Your task to perform on an android device: What's the weather? Image 0: 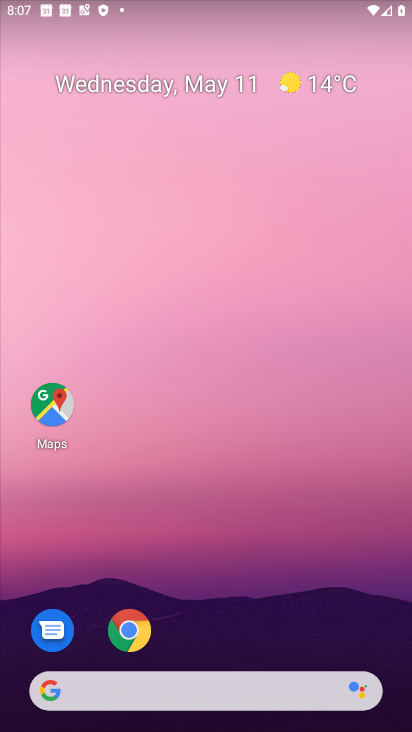
Step 0: click (135, 695)
Your task to perform on an android device: What's the weather? Image 1: 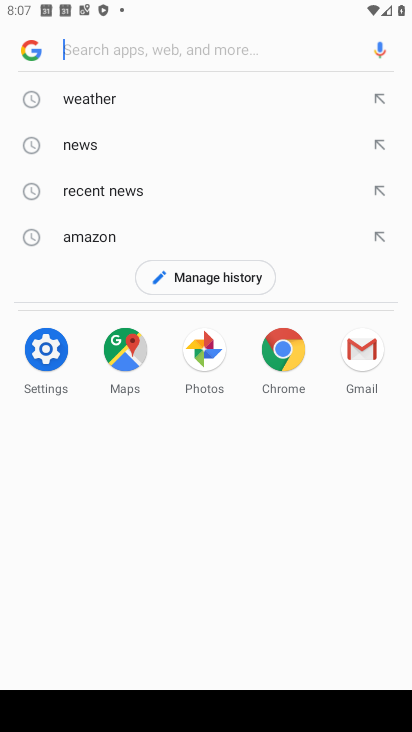
Step 1: click (103, 85)
Your task to perform on an android device: What's the weather? Image 2: 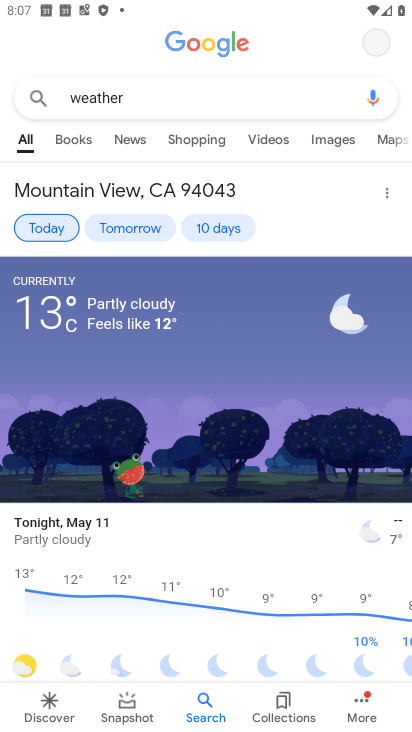
Step 2: task complete